Your task to perform on an android device: Open accessibility settings Image 0: 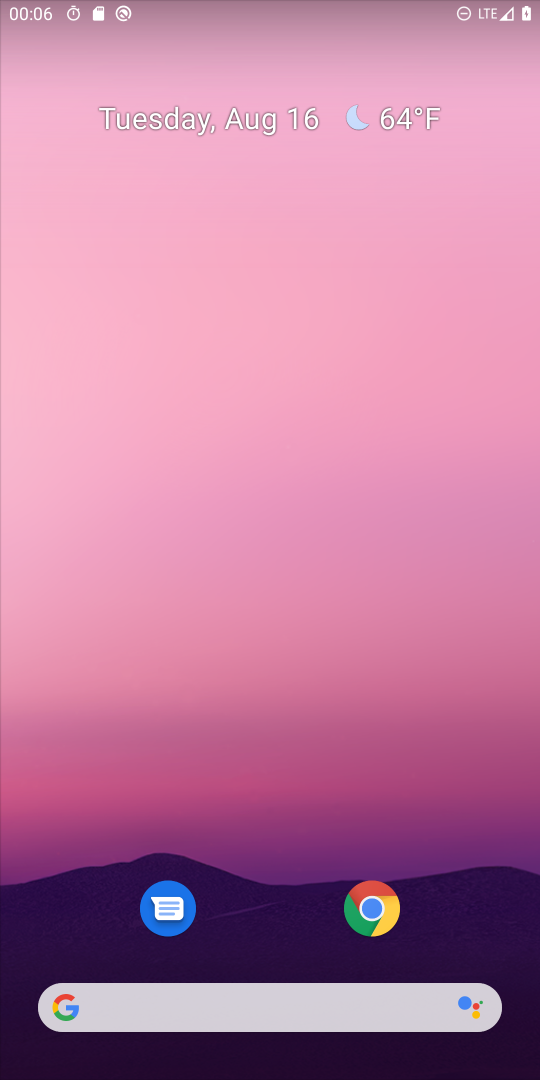
Step 0: drag from (285, 940) to (445, 60)
Your task to perform on an android device: Open accessibility settings Image 1: 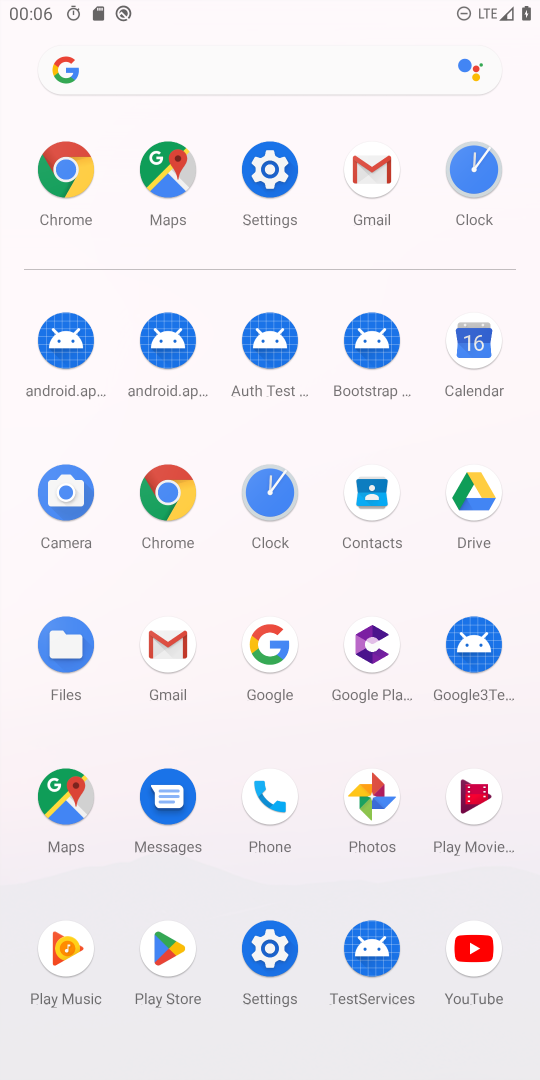
Step 1: click (280, 168)
Your task to perform on an android device: Open accessibility settings Image 2: 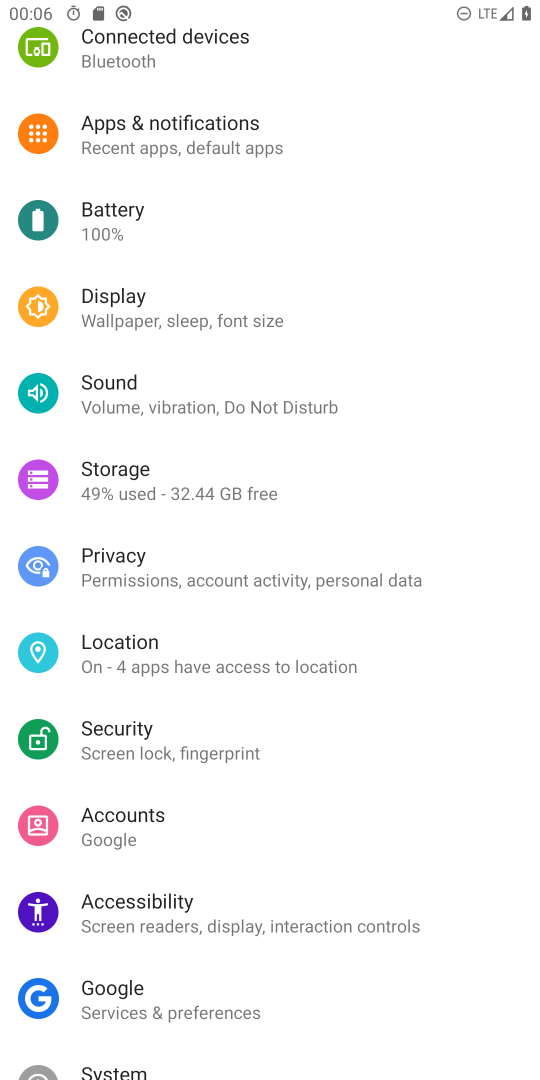
Step 2: click (139, 895)
Your task to perform on an android device: Open accessibility settings Image 3: 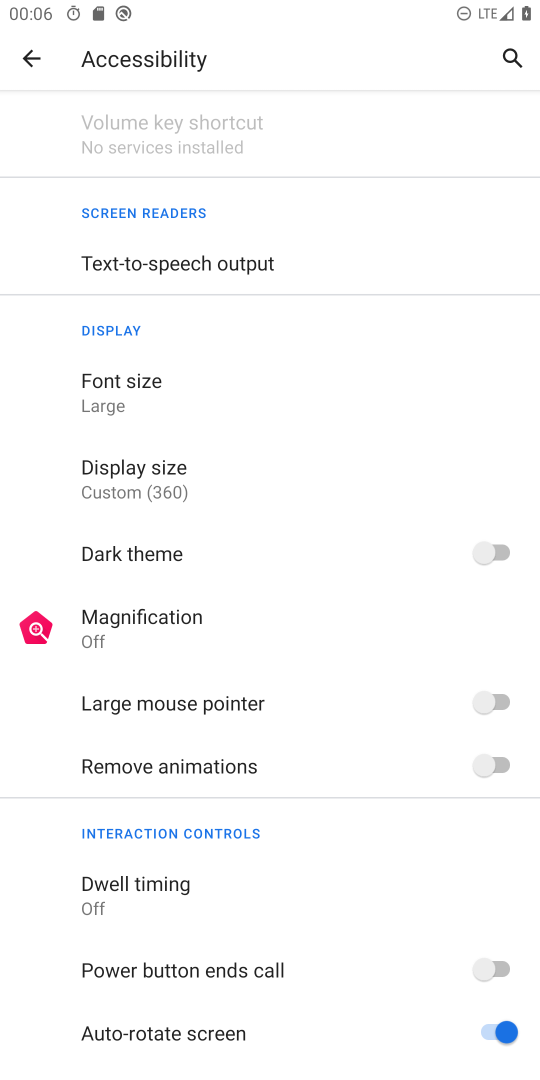
Step 3: task complete